Your task to perform on an android device: change notifications settings Image 0: 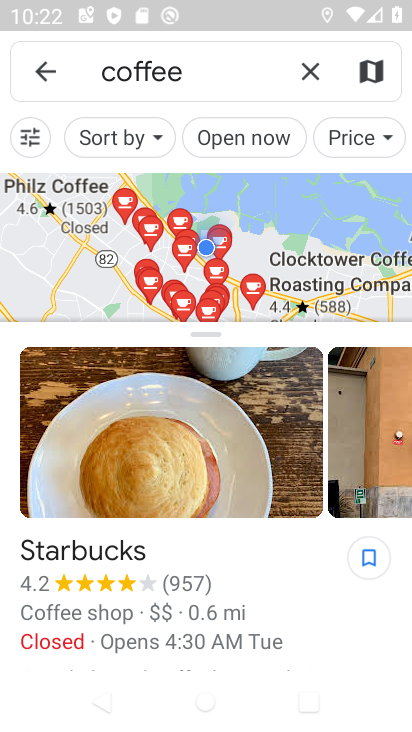
Step 0: press home button
Your task to perform on an android device: change notifications settings Image 1: 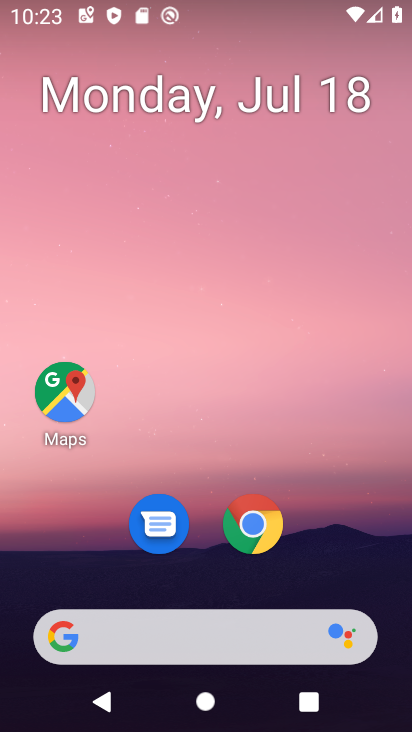
Step 1: drag from (237, 430) to (258, 5)
Your task to perform on an android device: change notifications settings Image 2: 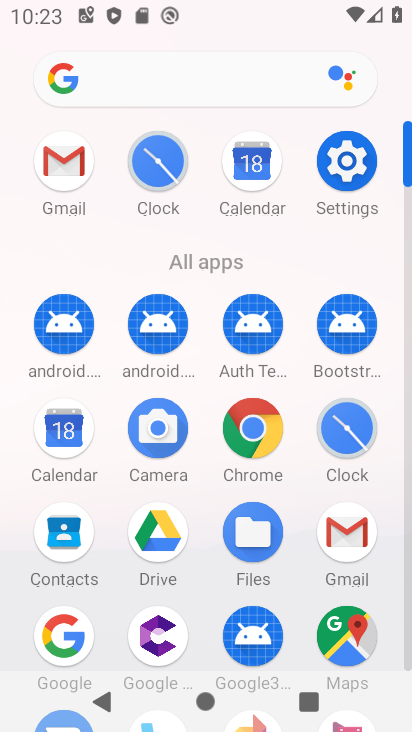
Step 2: click (340, 157)
Your task to perform on an android device: change notifications settings Image 3: 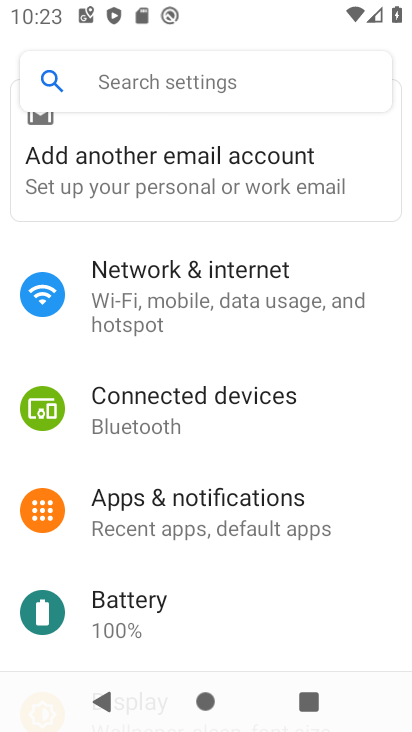
Step 3: click (284, 508)
Your task to perform on an android device: change notifications settings Image 4: 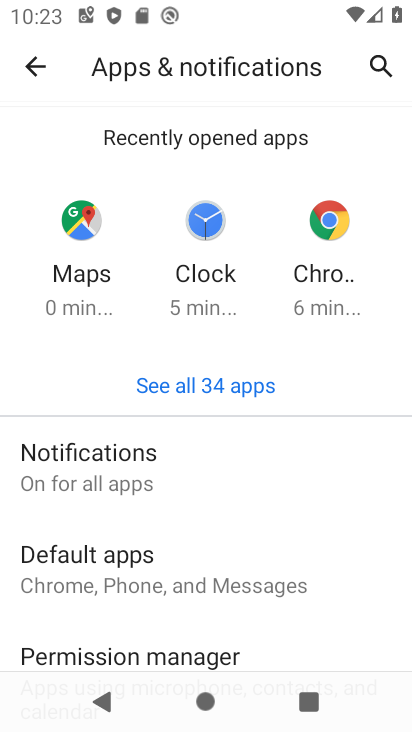
Step 4: click (131, 466)
Your task to perform on an android device: change notifications settings Image 5: 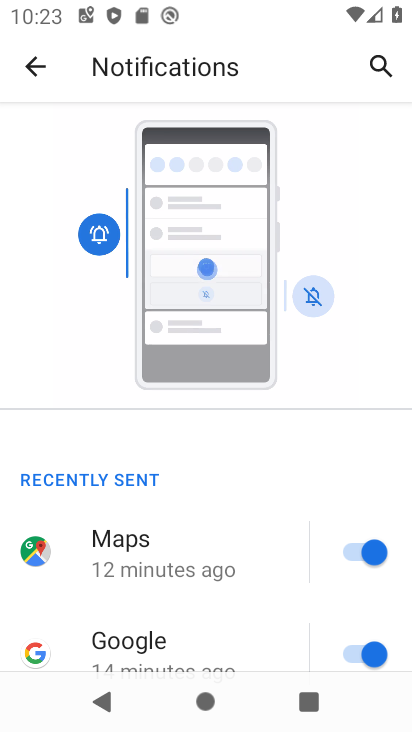
Step 5: drag from (176, 587) to (227, 232)
Your task to perform on an android device: change notifications settings Image 6: 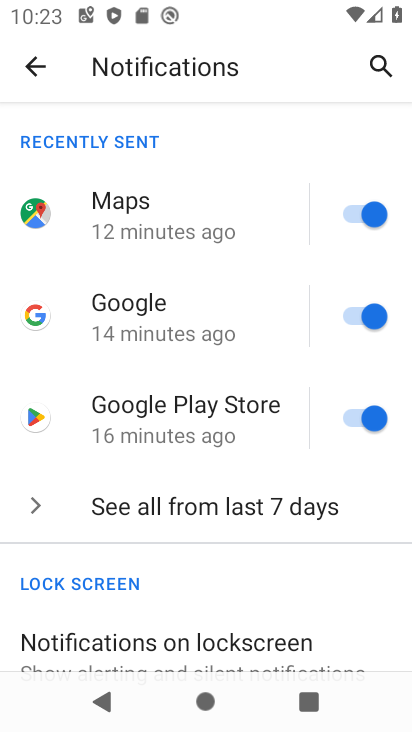
Step 6: click (235, 507)
Your task to perform on an android device: change notifications settings Image 7: 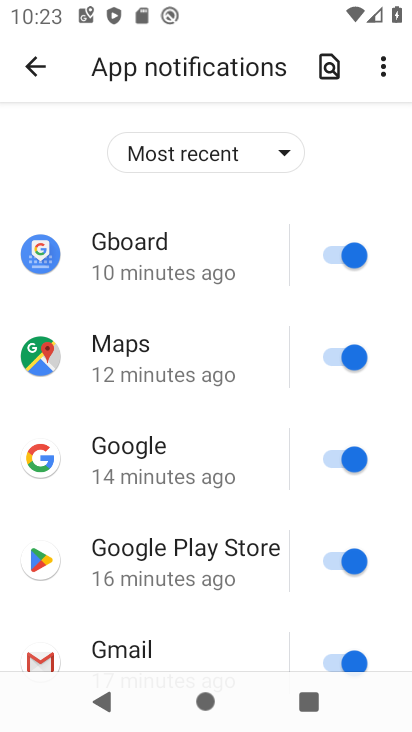
Step 7: drag from (222, 537) to (230, 229)
Your task to perform on an android device: change notifications settings Image 8: 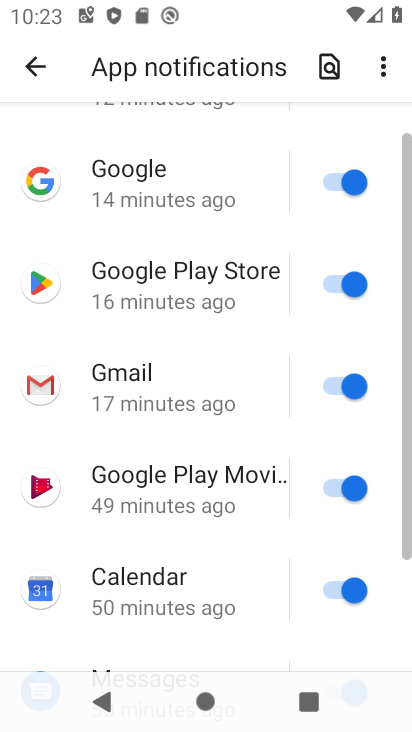
Step 8: drag from (217, 512) to (239, 240)
Your task to perform on an android device: change notifications settings Image 9: 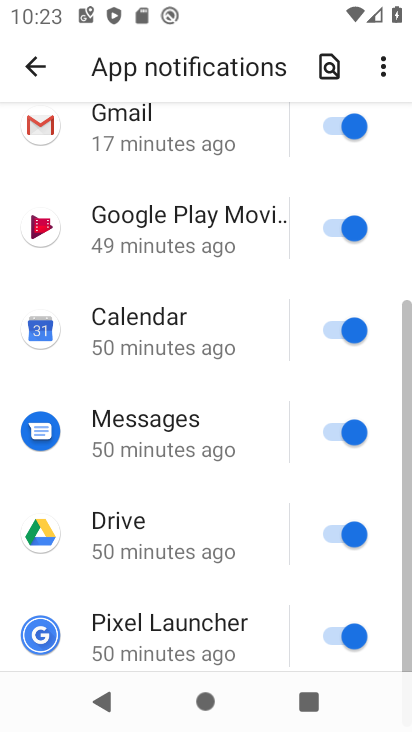
Step 9: drag from (207, 503) to (229, 227)
Your task to perform on an android device: change notifications settings Image 10: 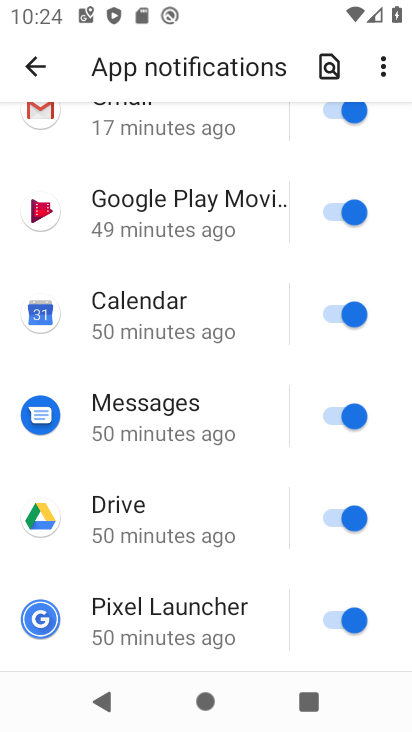
Step 10: drag from (227, 185) to (217, 494)
Your task to perform on an android device: change notifications settings Image 11: 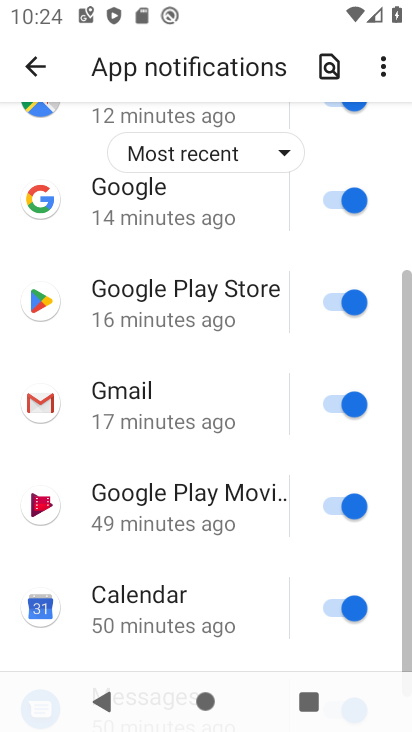
Step 11: drag from (201, 259) to (221, 459)
Your task to perform on an android device: change notifications settings Image 12: 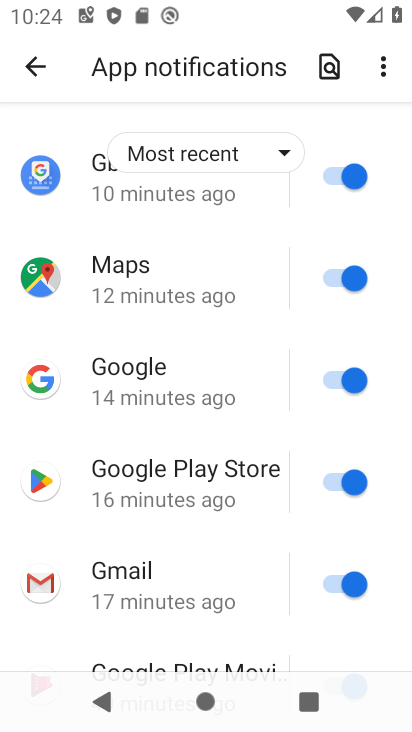
Step 12: drag from (171, 248) to (210, 554)
Your task to perform on an android device: change notifications settings Image 13: 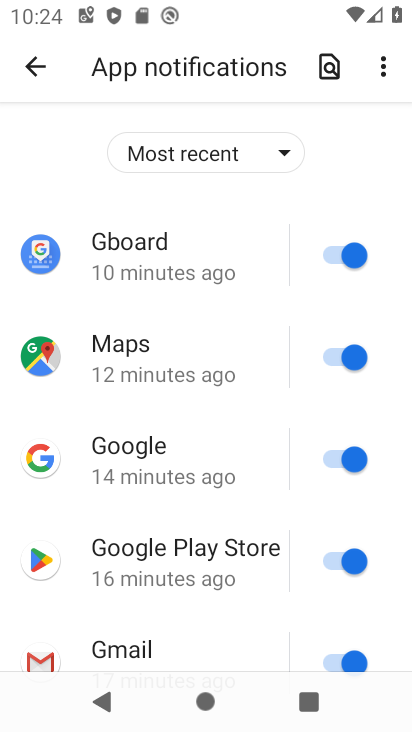
Step 13: click (357, 261)
Your task to perform on an android device: change notifications settings Image 14: 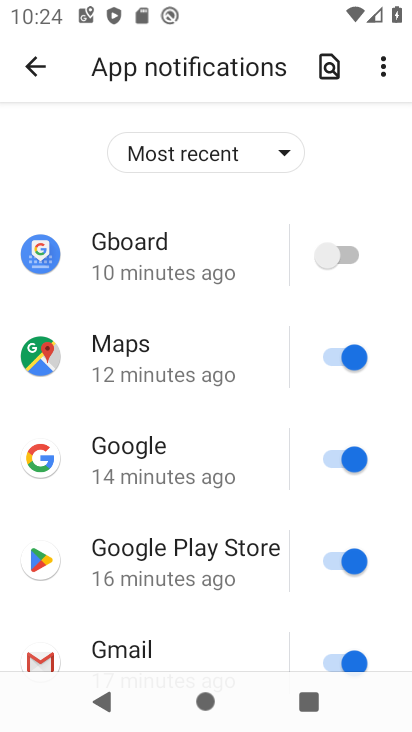
Step 14: click (352, 360)
Your task to perform on an android device: change notifications settings Image 15: 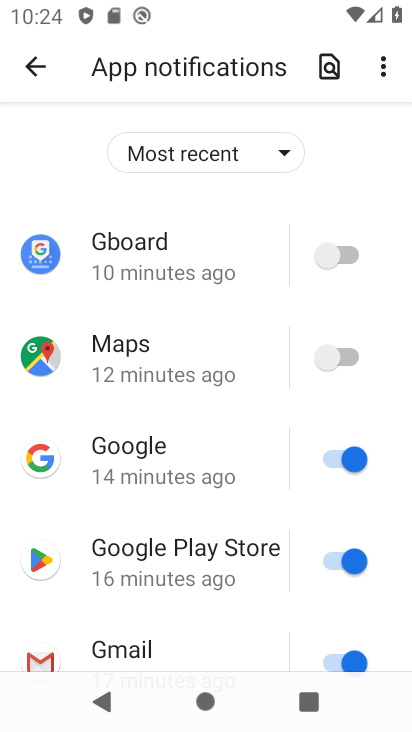
Step 15: click (351, 458)
Your task to perform on an android device: change notifications settings Image 16: 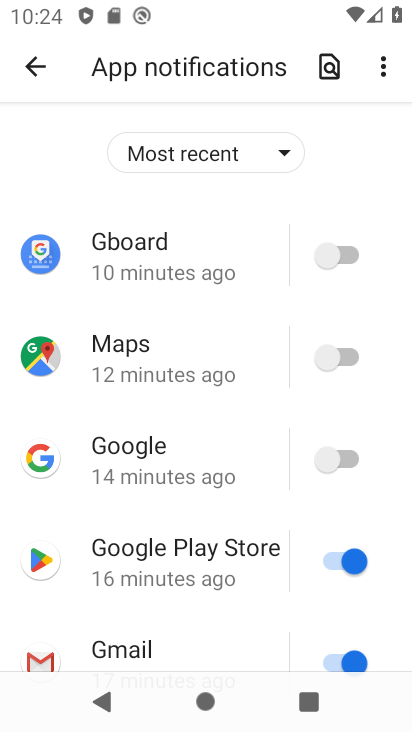
Step 16: click (351, 552)
Your task to perform on an android device: change notifications settings Image 17: 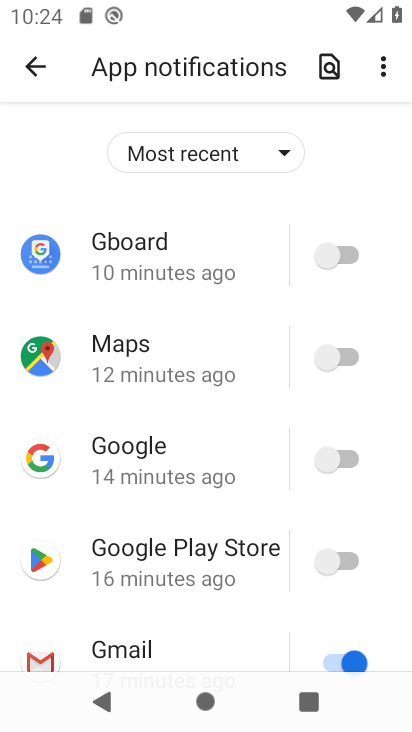
Step 17: click (342, 651)
Your task to perform on an android device: change notifications settings Image 18: 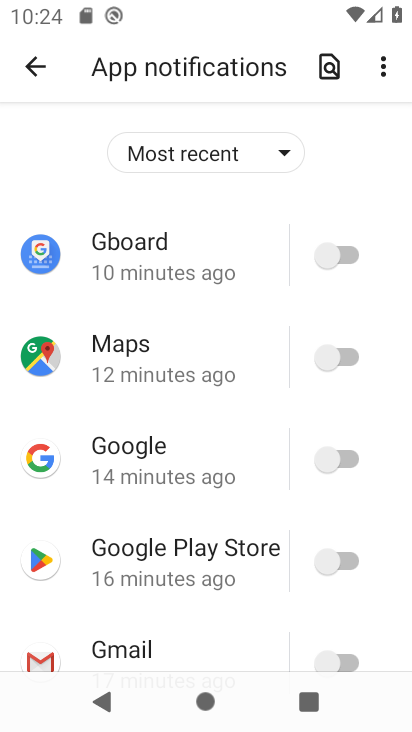
Step 18: drag from (247, 550) to (246, 181)
Your task to perform on an android device: change notifications settings Image 19: 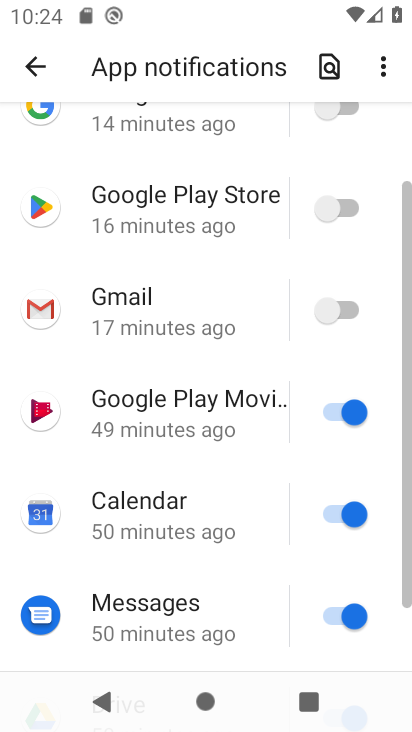
Step 19: drag from (205, 443) to (230, 149)
Your task to perform on an android device: change notifications settings Image 20: 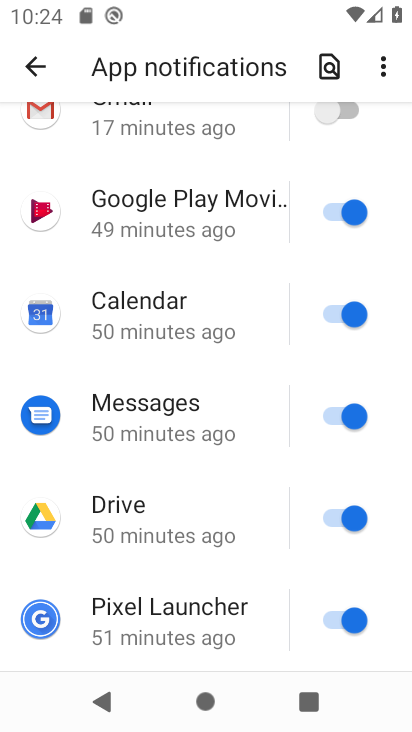
Step 20: click (338, 210)
Your task to perform on an android device: change notifications settings Image 21: 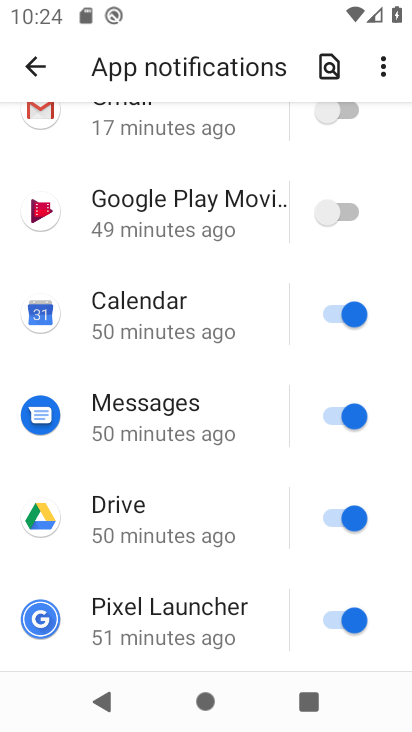
Step 21: click (345, 318)
Your task to perform on an android device: change notifications settings Image 22: 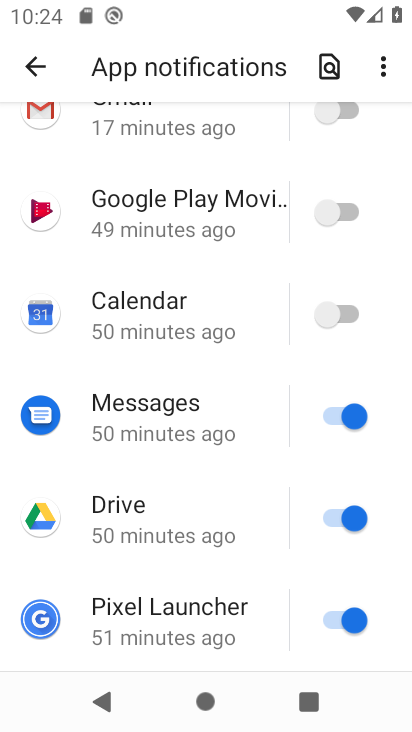
Step 22: click (353, 415)
Your task to perform on an android device: change notifications settings Image 23: 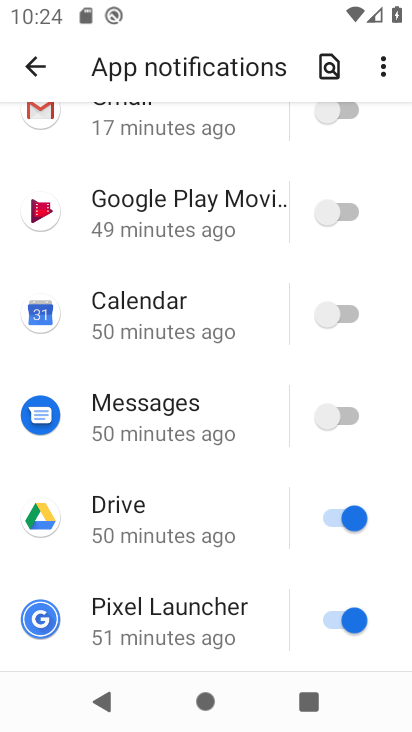
Step 23: click (352, 528)
Your task to perform on an android device: change notifications settings Image 24: 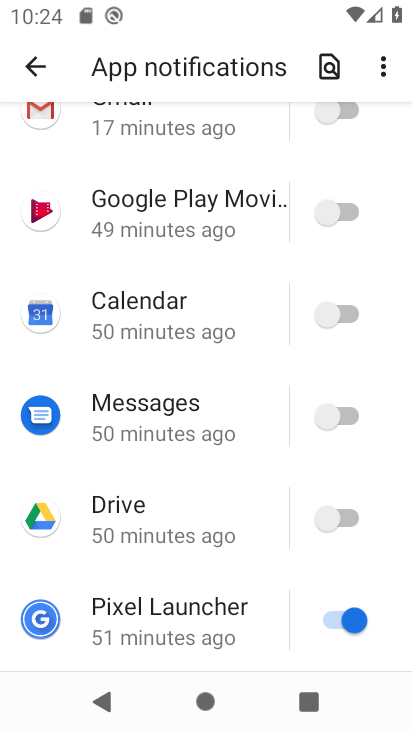
Step 24: click (353, 613)
Your task to perform on an android device: change notifications settings Image 25: 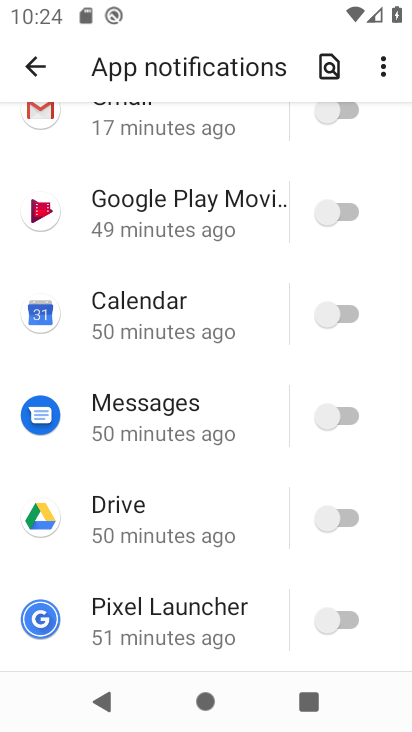
Step 25: task complete